Your task to perform on an android device: turn on airplane mode Image 0: 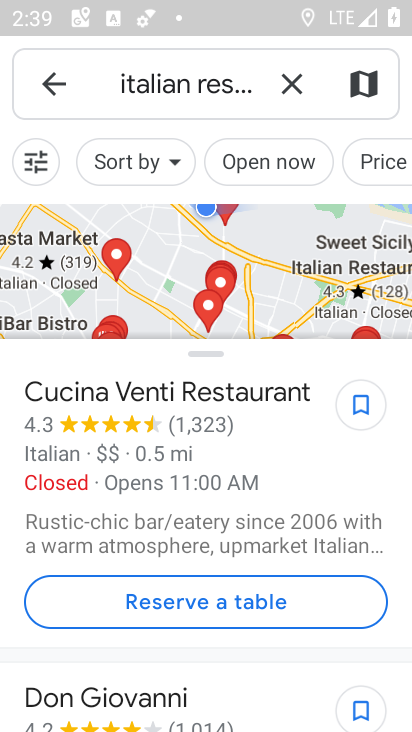
Step 0: press home button
Your task to perform on an android device: turn on airplane mode Image 1: 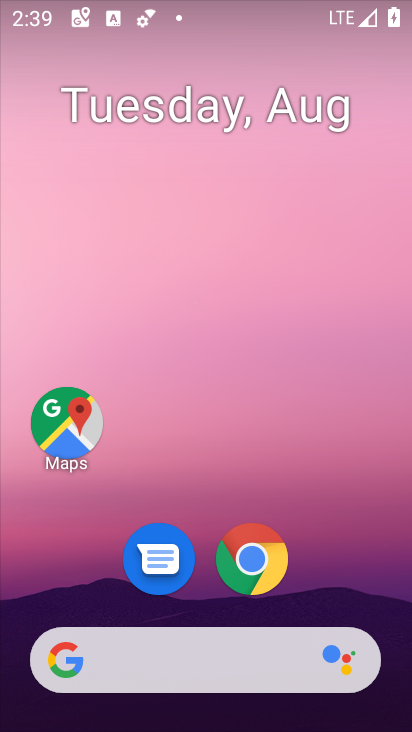
Step 1: drag from (197, 502) to (265, 75)
Your task to perform on an android device: turn on airplane mode Image 2: 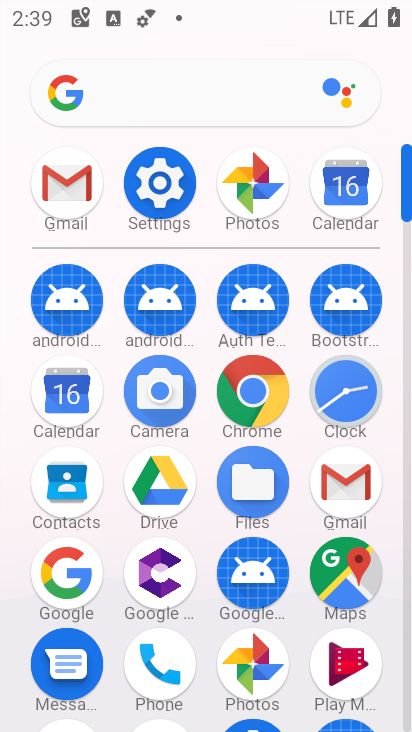
Step 2: click (156, 204)
Your task to perform on an android device: turn on airplane mode Image 3: 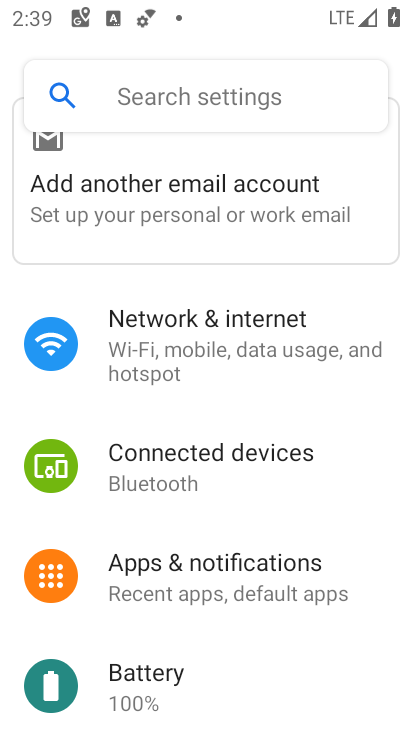
Step 3: click (209, 371)
Your task to perform on an android device: turn on airplane mode Image 4: 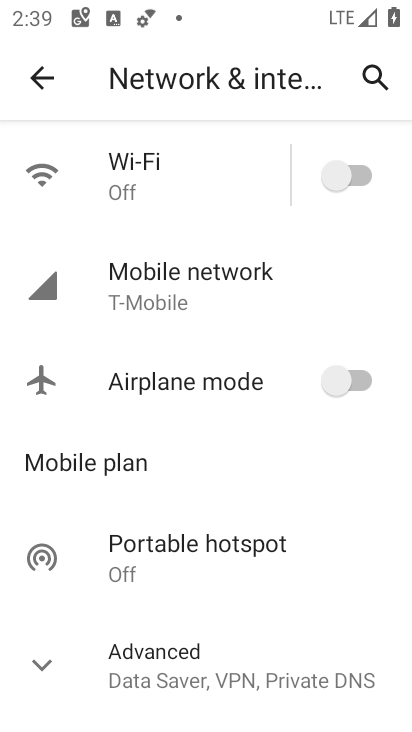
Step 4: click (365, 383)
Your task to perform on an android device: turn on airplane mode Image 5: 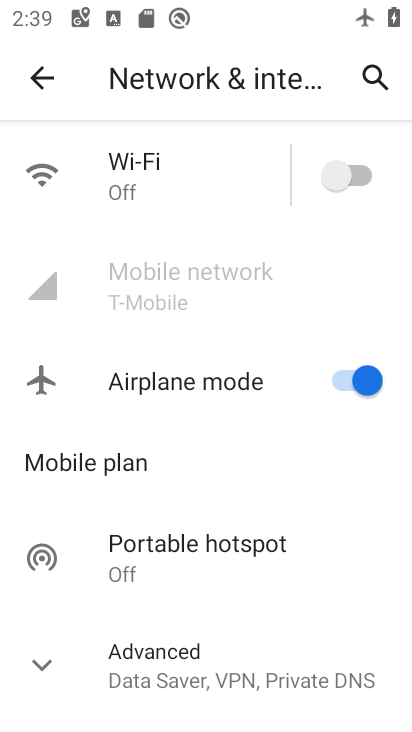
Step 5: task complete